Your task to perform on an android device: Open Reddit.com Image 0: 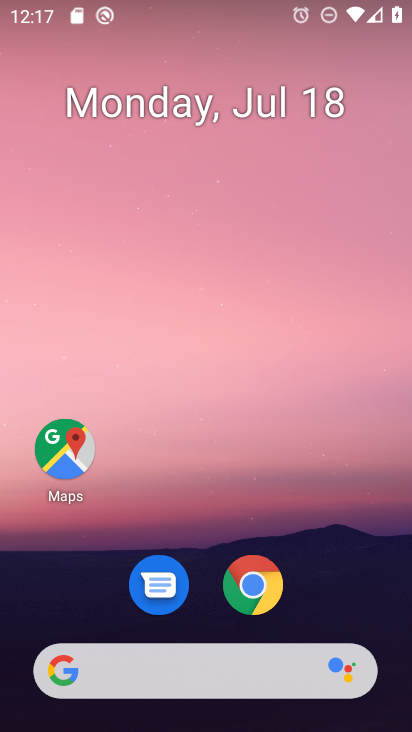
Step 0: click (267, 691)
Your task to perform on an android device: Open Reddit.com Image 1: 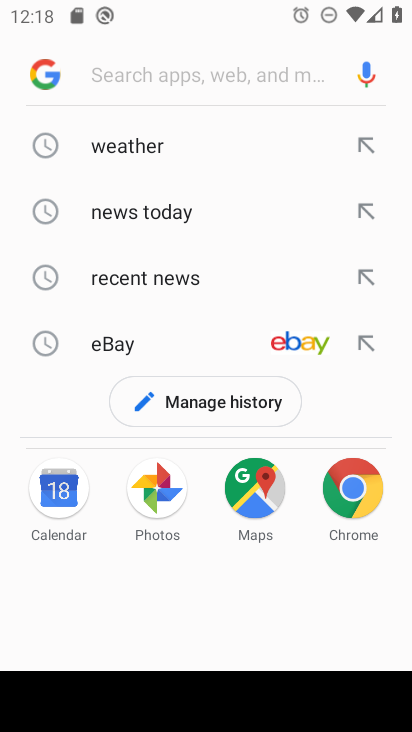
Step 1: type "reddit.com"
Your task to perform on an android device: Open Reddit.com Image 2: 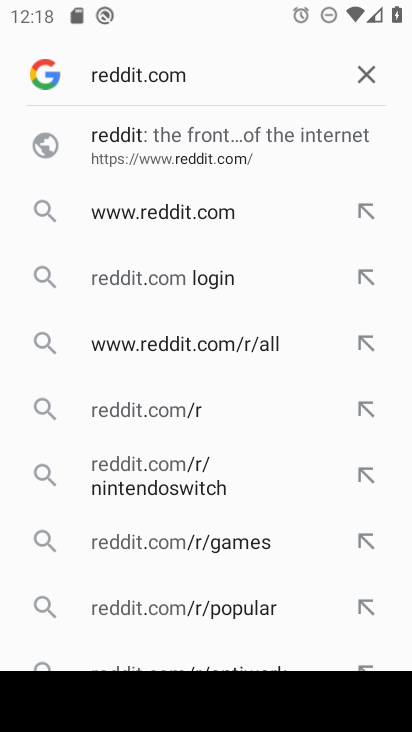
Step 2: click (147, 148)
Your task to perform on an android device: Open Reddit.com Image 3: 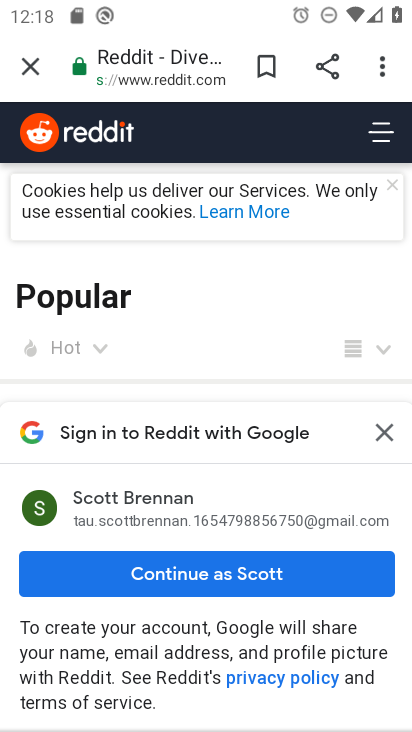
Step 3: click (384, 423)
Your task to perform on an android device: Open Reddit.com Image 4: 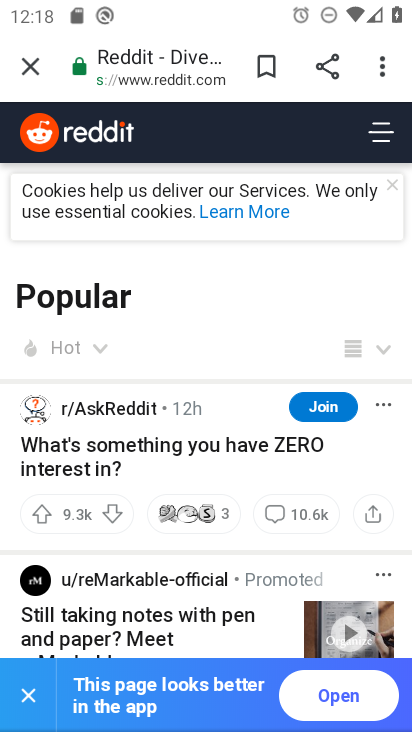
Step 4: task complete